Your task to perform on an android device: What's on my calendar tomorrow? Image 0: 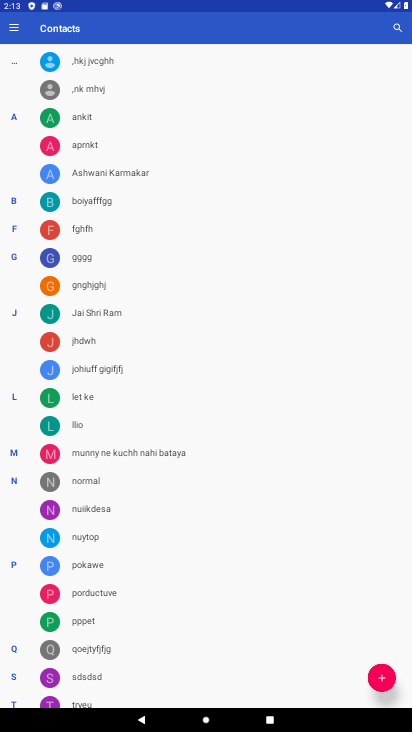
Step 0: press home button
Your task to perform on an android device: What's on my calendar tomorrow? Image 1: 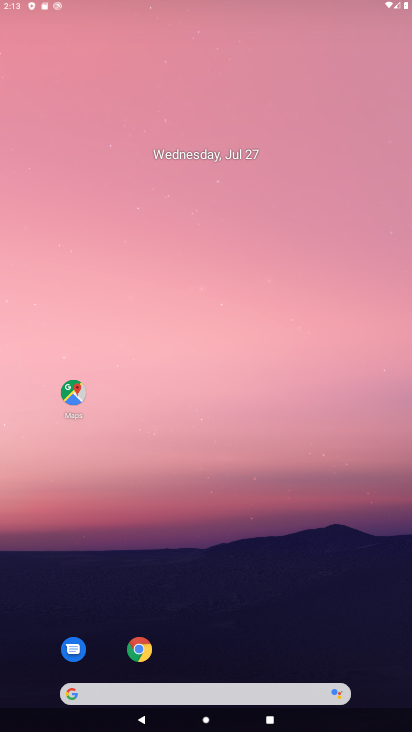
Step 1: drag from (391, 661) to (167, 43)
Your task to perform on an android device: What's on my calendar tomorrow? Image 2: 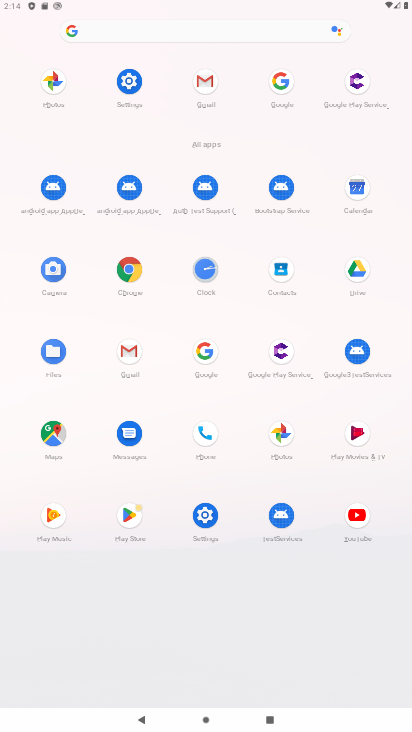
Step 2: click (364, 181)
Your task to perform on an android device: What's on my calendar tomorrow? Image 3: 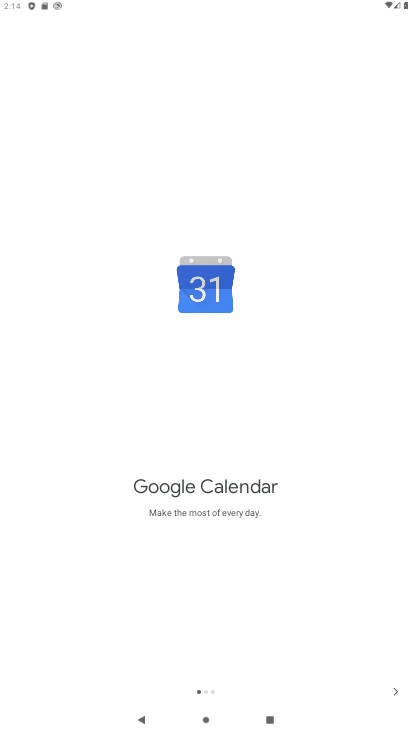
Step 3: click (393, 687)
Your task to perform on an android device: What's on my calendar tomorrow? Image 4: 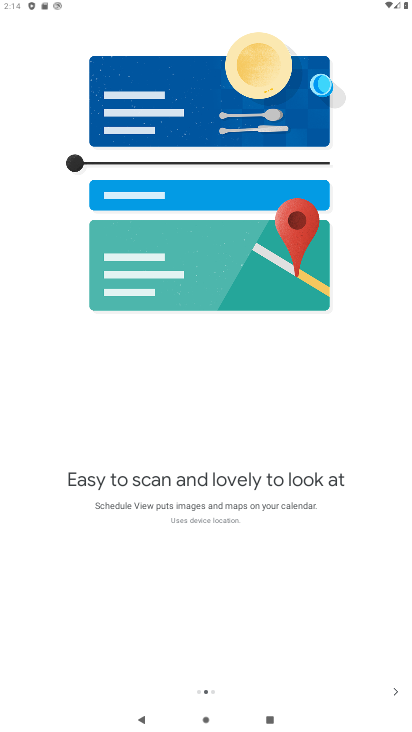
Step 4: click (393, 687)
Your task to perform on an android device: What's on my calendar tomorrow? Image 5: 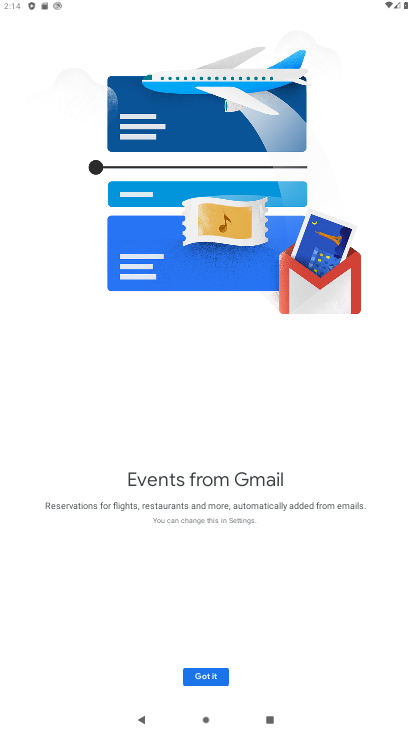
Step 5: click (208, 670)
Your task to perform on an android device: What's on my calendar tomorrow? Image 6: 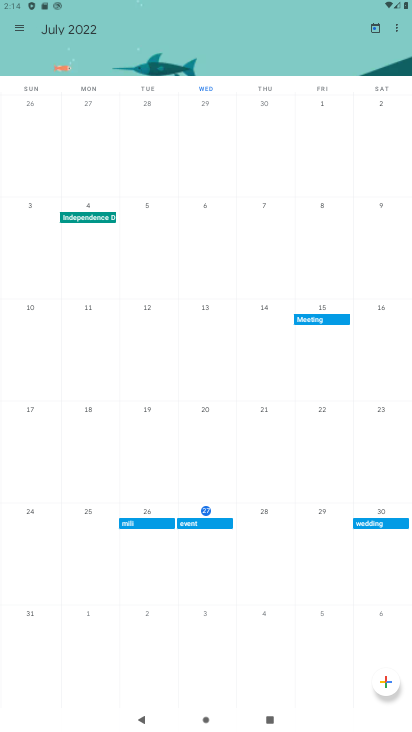
Step 6: task complete